Your task to perform on an android device: Add macbook to the cart on ebay, then select checkout. Image 0: 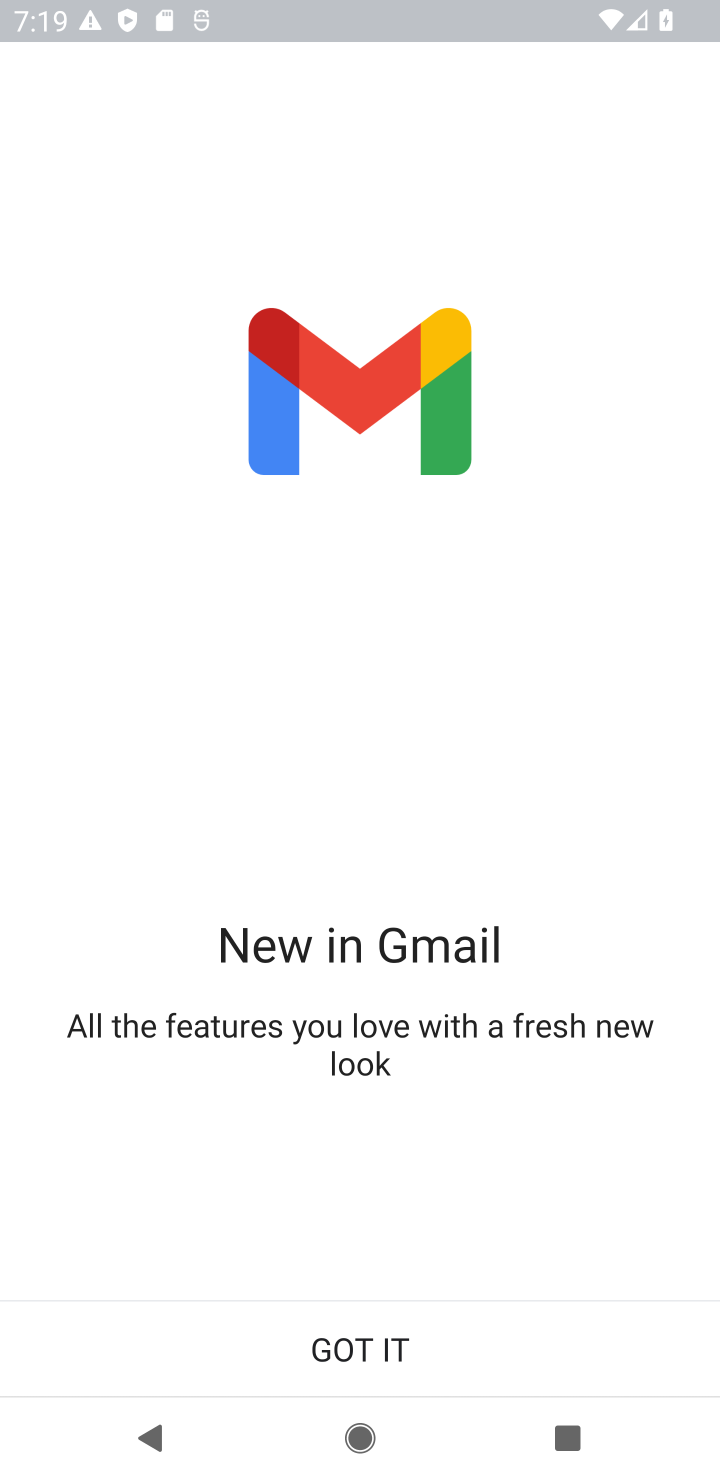
Step 0: press home button
Your task to perform on an android device: Add macbook to the cart on ebay, then select checkout. Image 1: 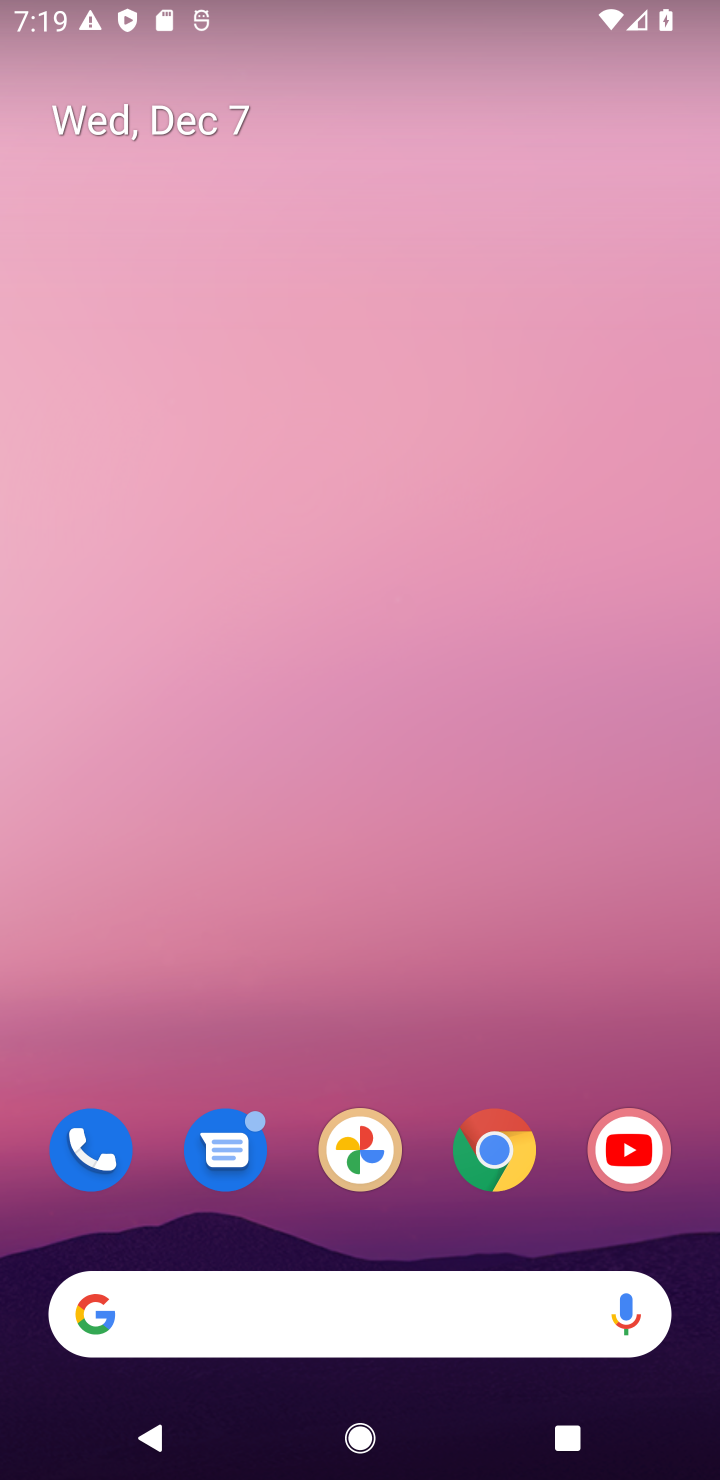
Step 1: click (493, 1152)
Your task to perform on an android device: Add macbook to the cart on ebay, then select checkout. Image 2: 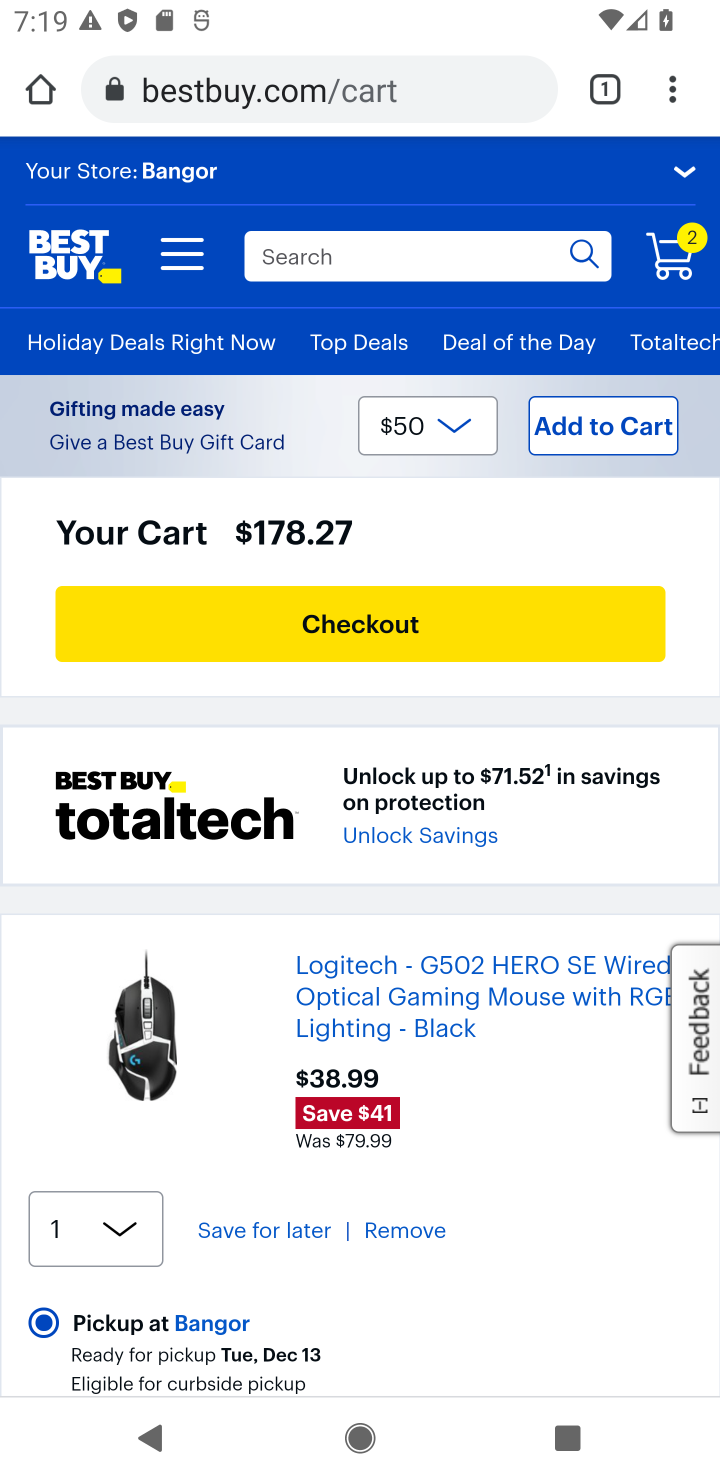
Step 2: click (350, 83)
Your task to perform on an android device: Add macbook to the cart on ebay, then select checkout. Image 3: 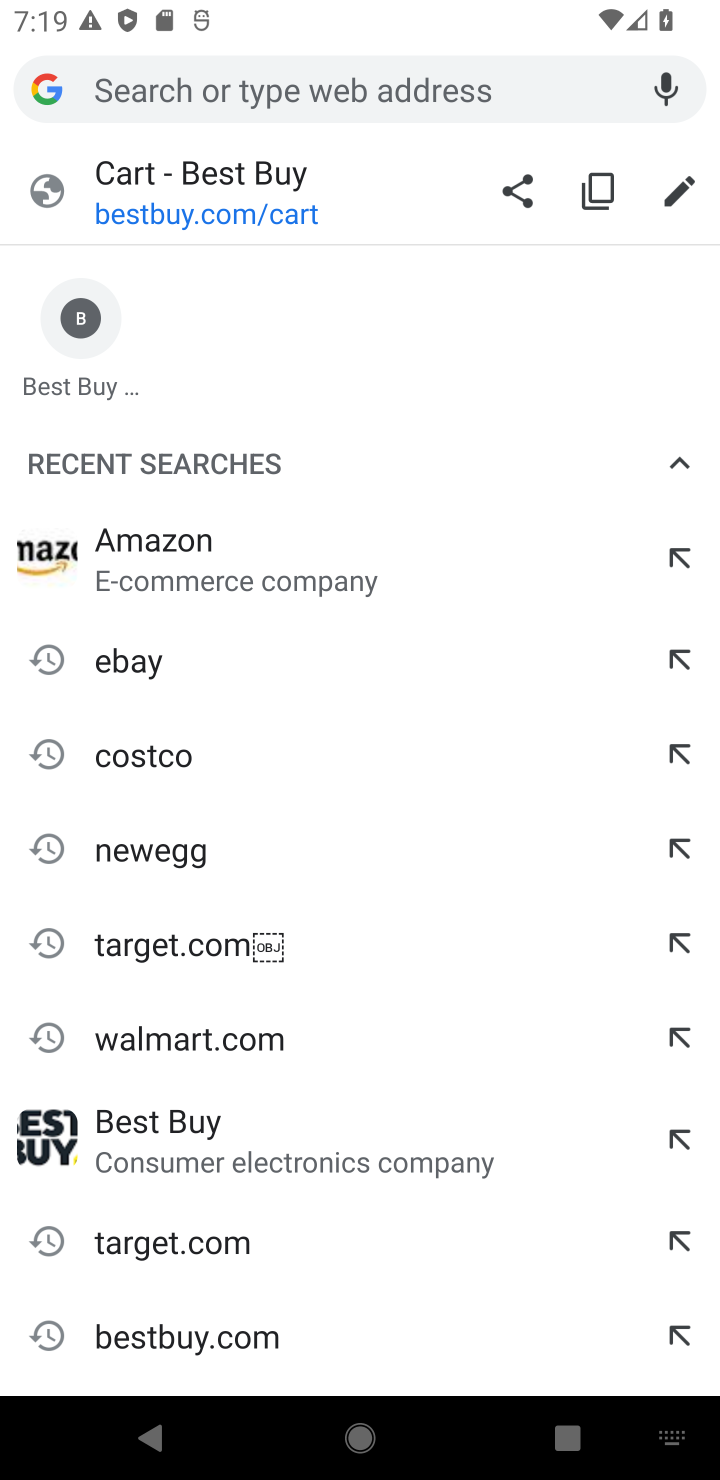
Step 3: click (228, 674)
Your task to perform on an android device: Add macbook to the cart on ebay, then select checkout. Image 4: 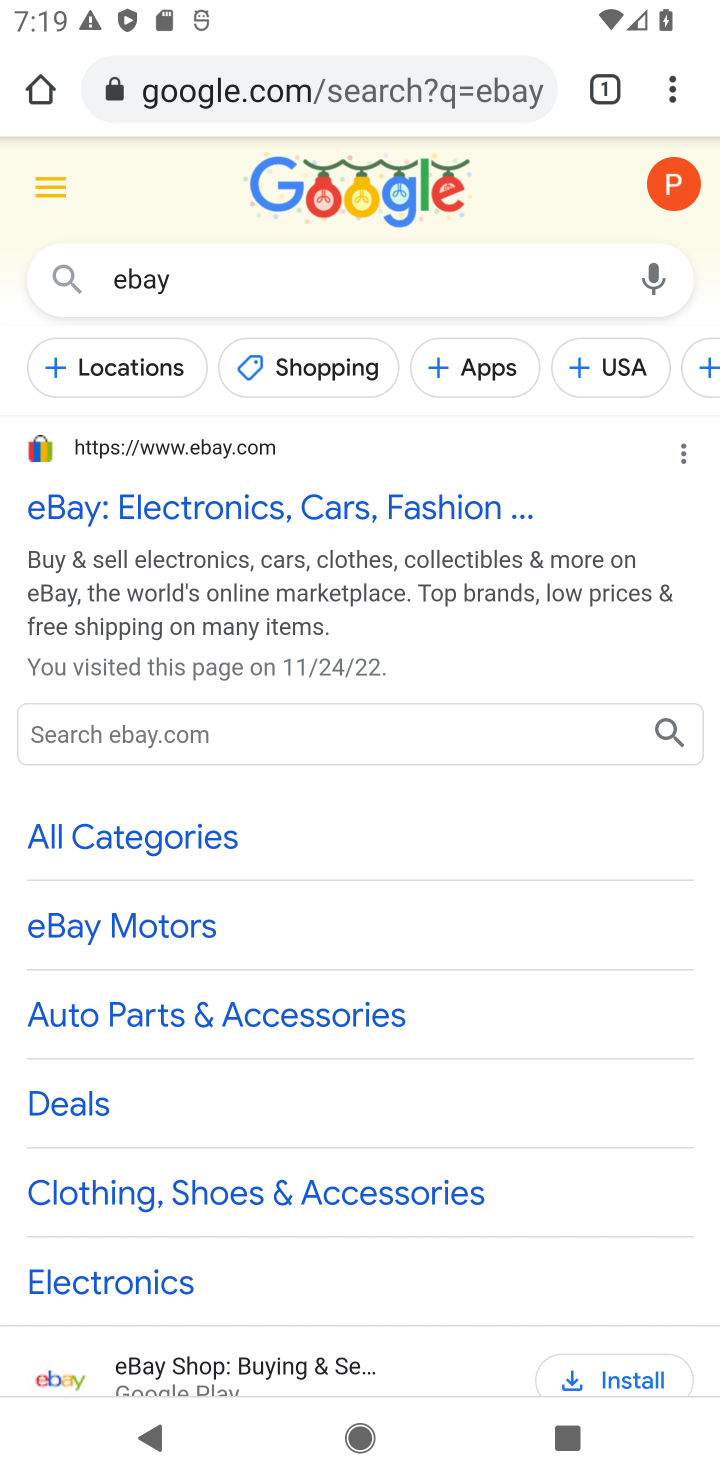
Step 4: click (159, 512)
Your task to perform on an android device: Add macbook to the cart on ebay, then select checkout. Image 5: 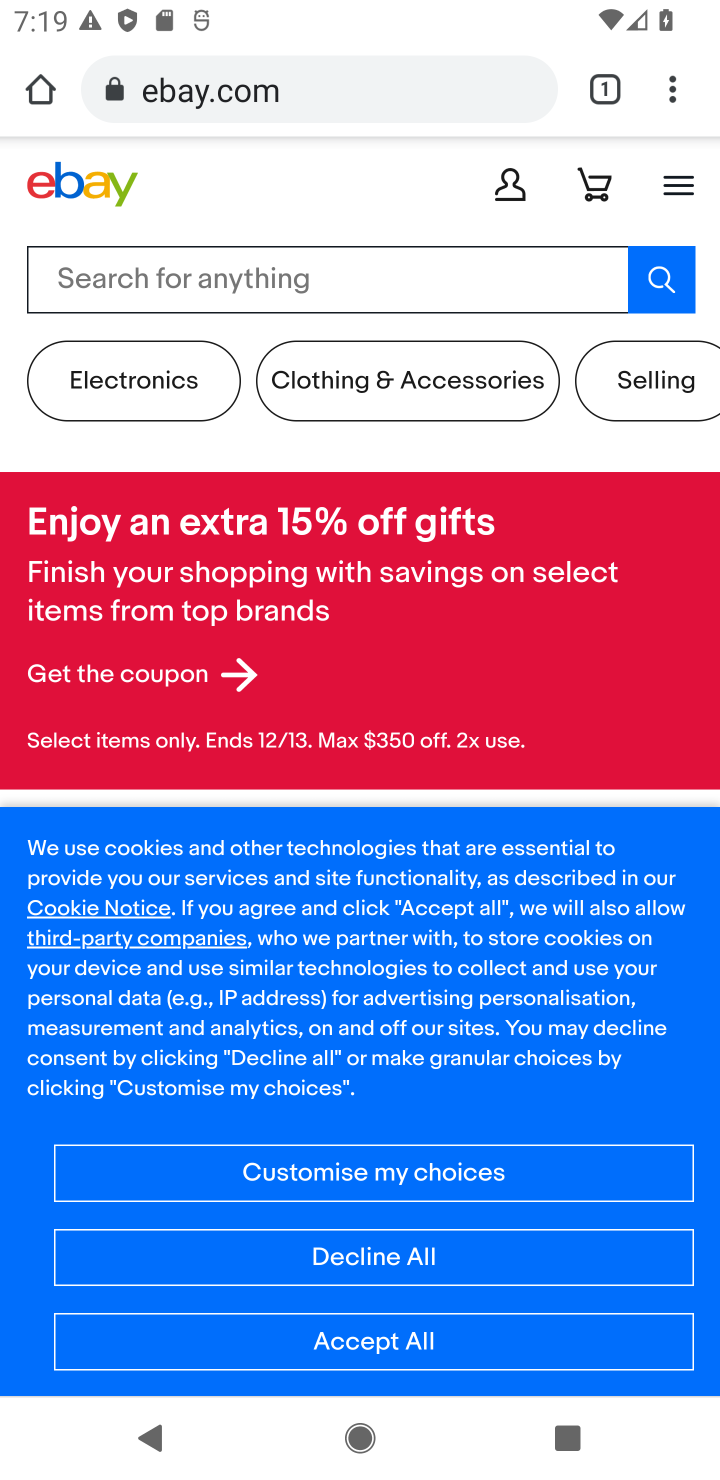
Step 5: type "macbook"
Your task to perform on an android device: Add macbook to the cart on ebay, then select checkout. Image 6: 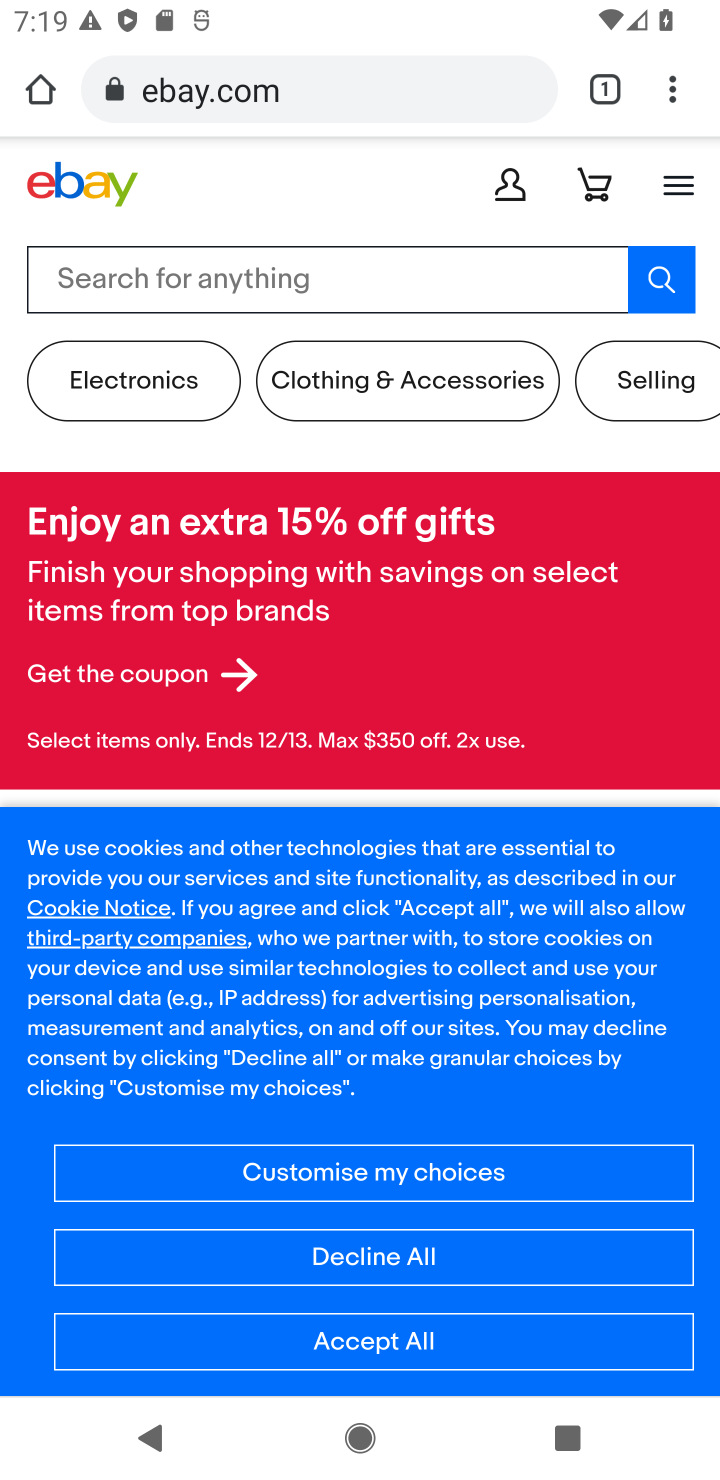
Step 6: click (331, 1341)
Your task to perform on an android device: Add macbook to the cart on ebay, then select checkout. Image 7: 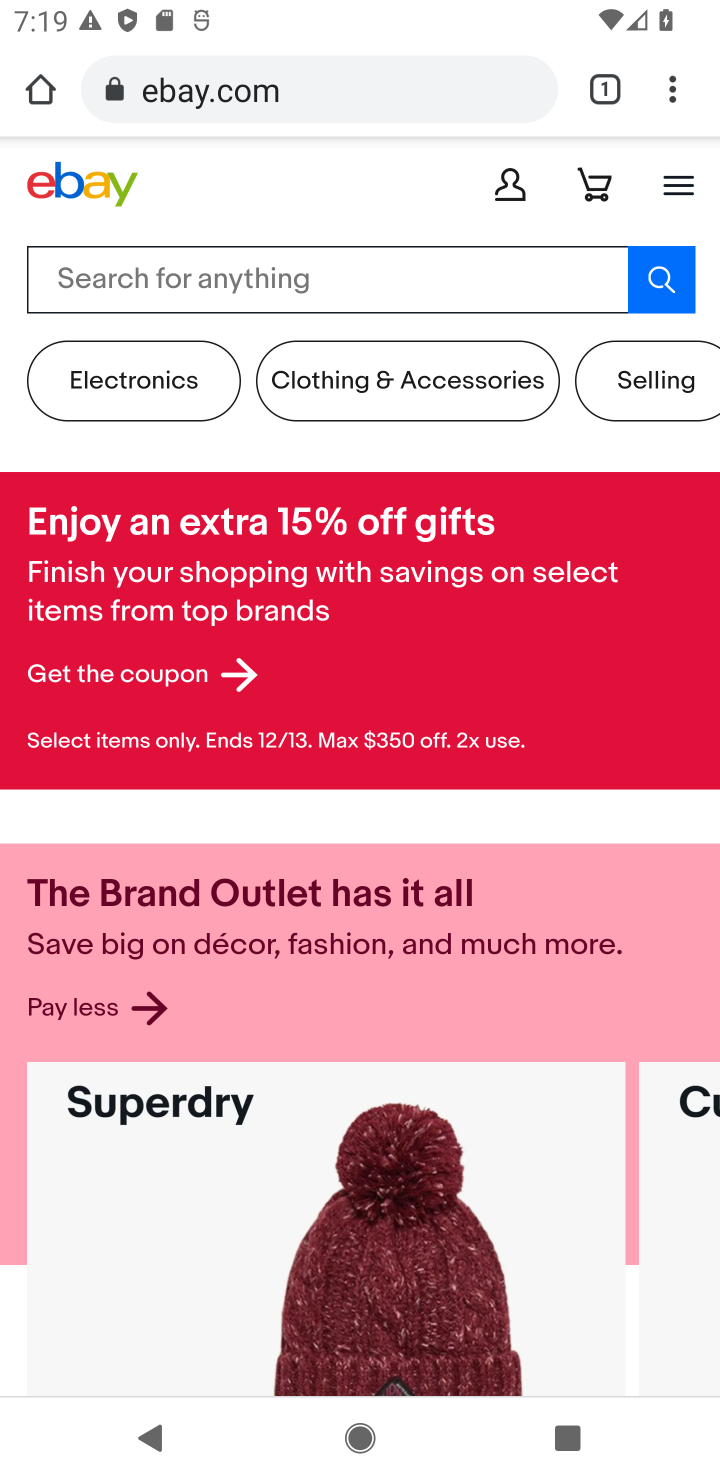
Step 7: click (378, 291)
Your task to perform on an android device: Add macbook to the cart on ebay, then select checkout. Image 8: 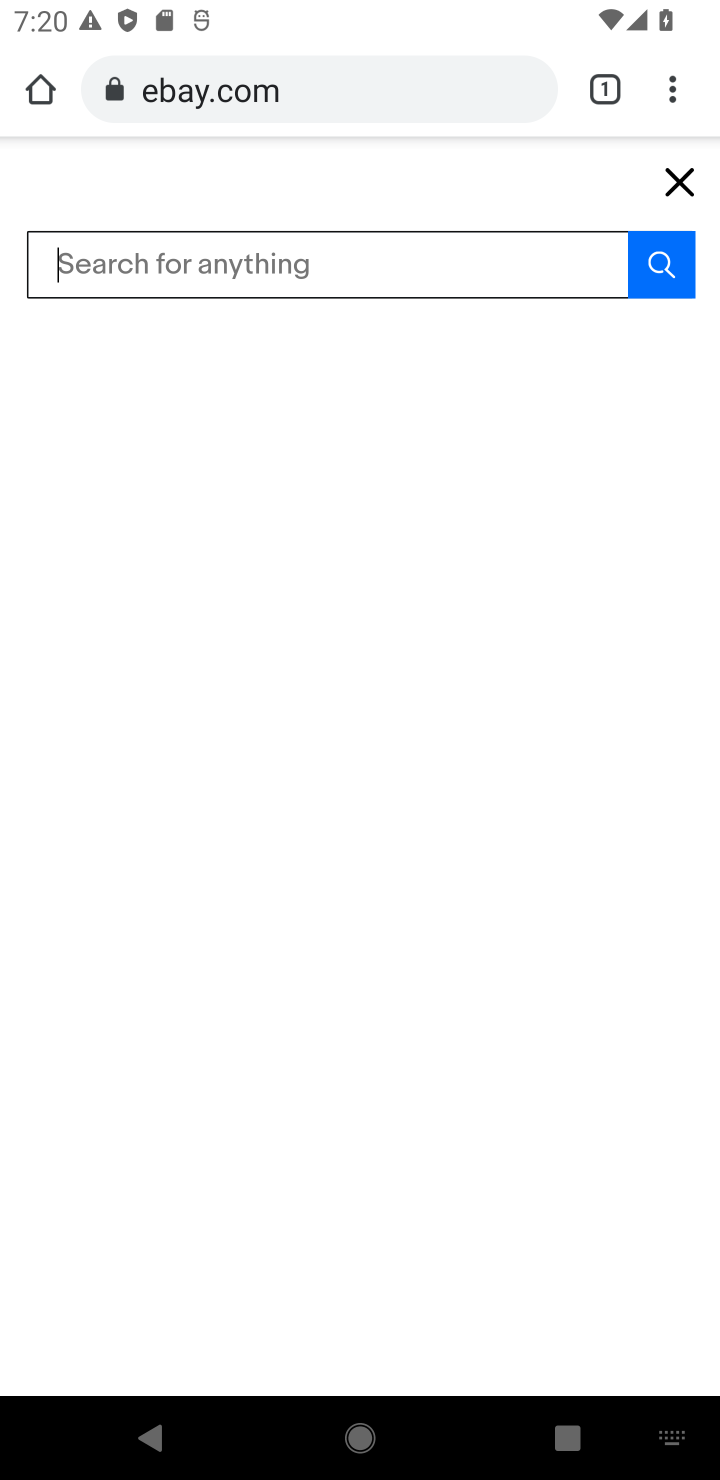
Step 8: type "macbook"
Your task to perform on an android device: Add macbook to the cart on ebay, then select checkout. Image 9: 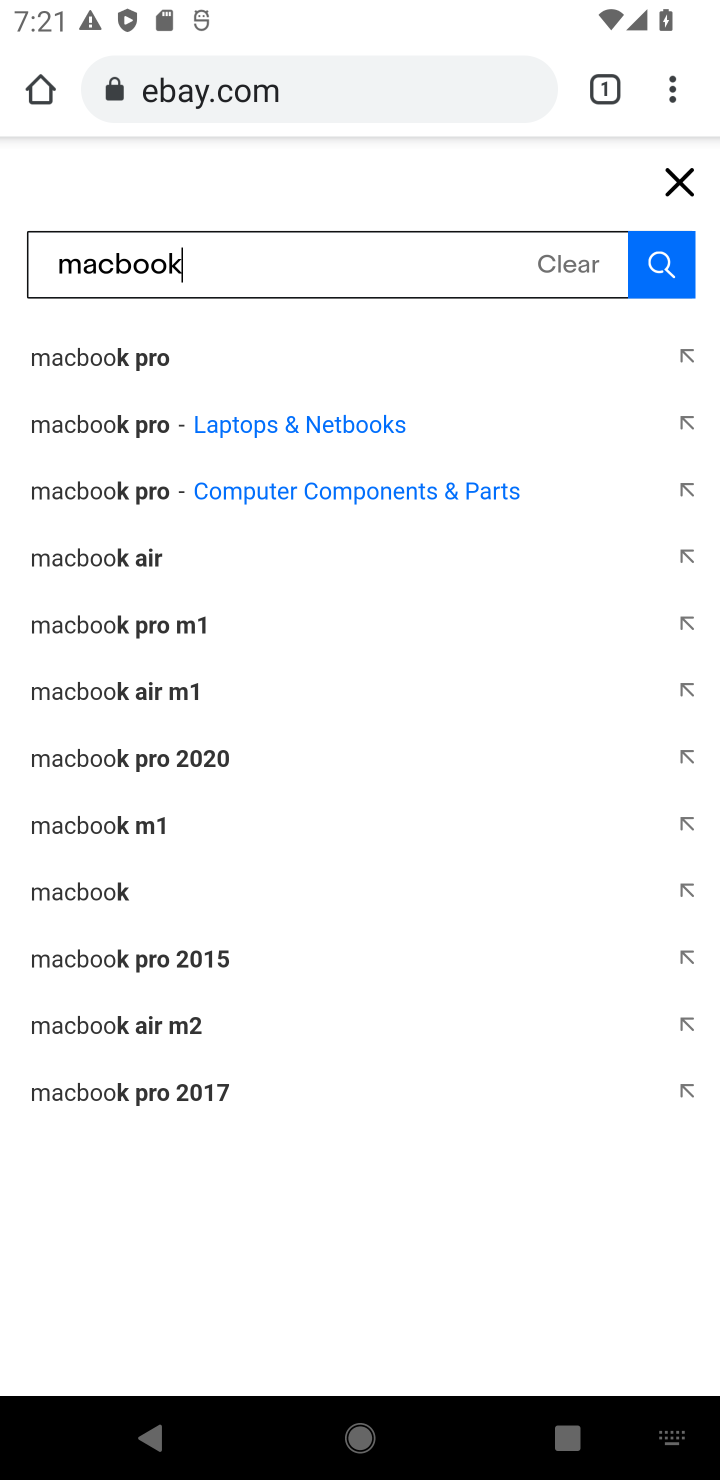
Step 9: click (70, 352)
Your task to perform on an android device: Add macbook to the cart on ebay, then select checkout. Image 10: 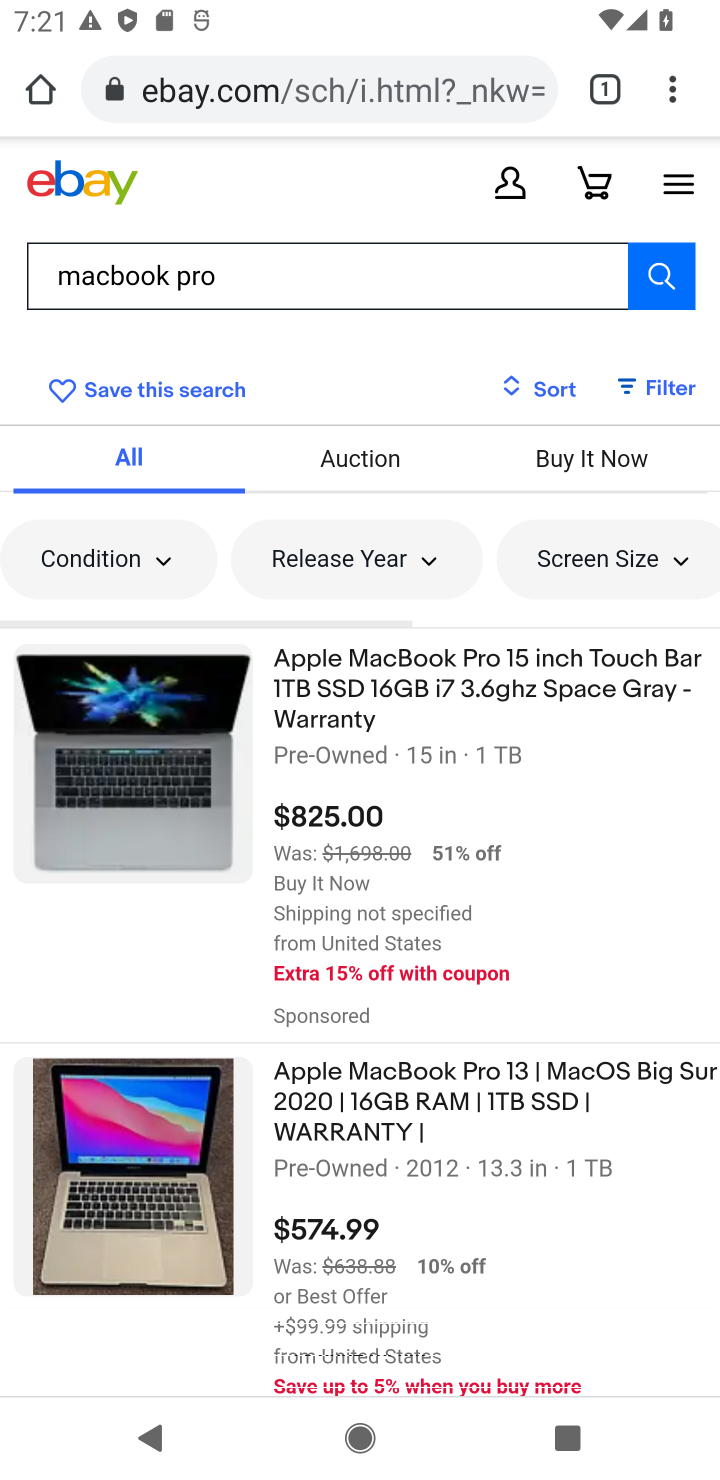
Step 10: click (131, 801)
Your task to perform on an android device: Add macbook to the cart on ebay, then select checkout. Image 11: 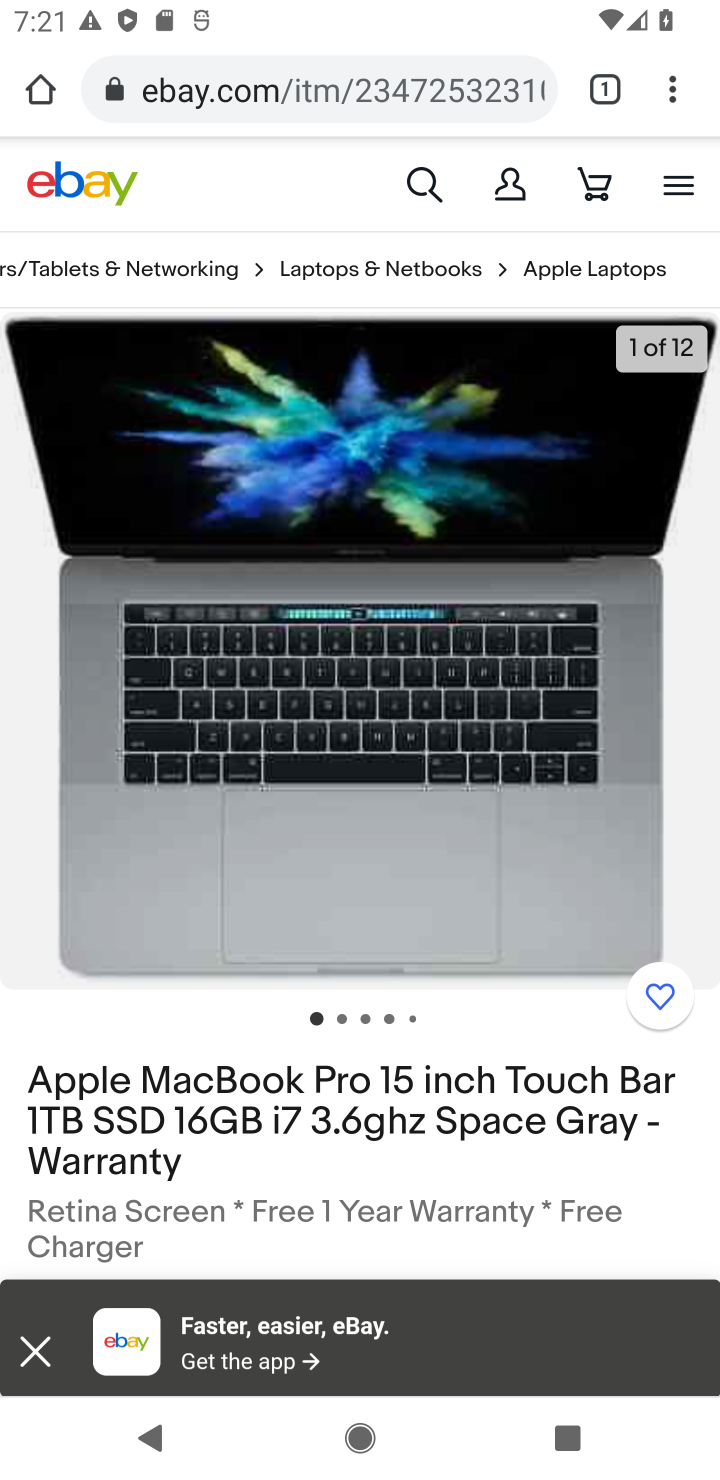
Step 11: drag from (428, 1220) to (462, 345)
Your task to perform on an android device: Add macbook to the cart on ebay, then select checkout. Image 12: 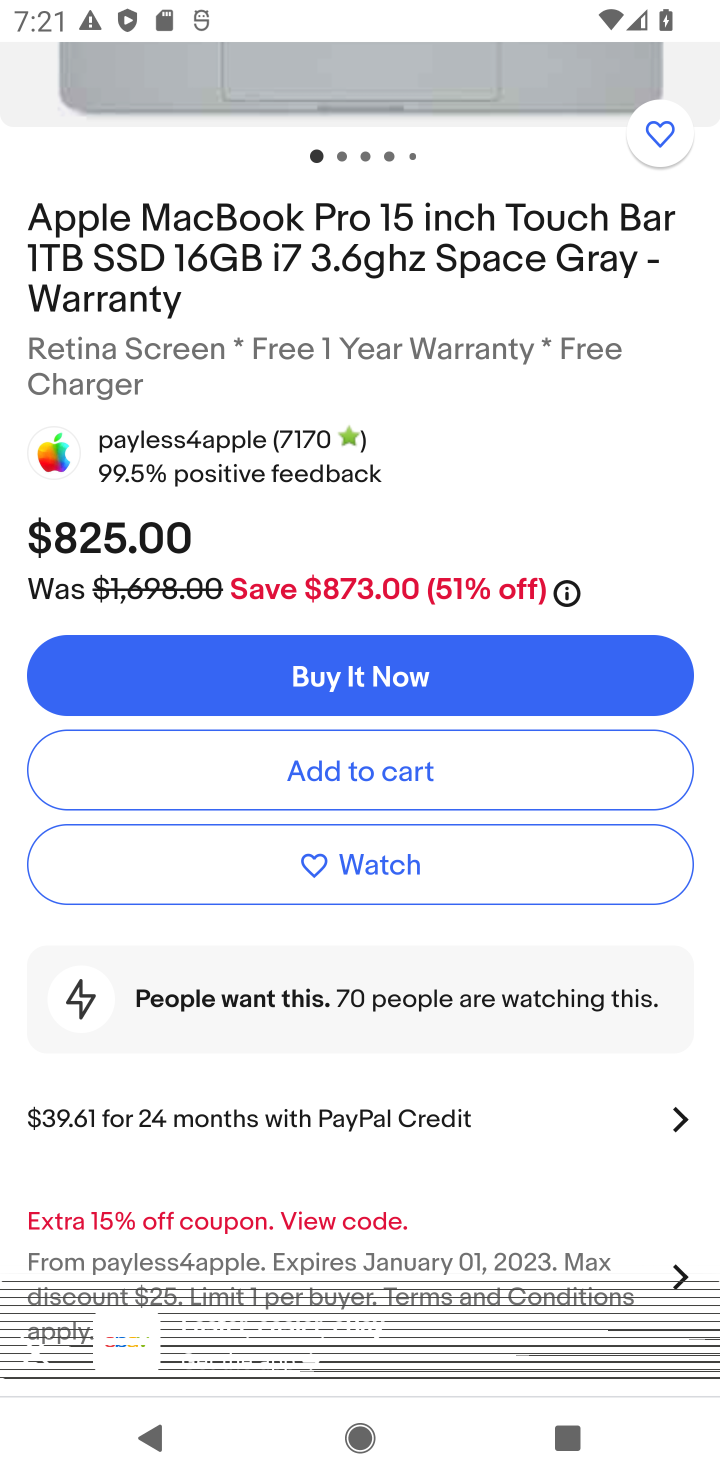
Step 12: click (380, 770)
Your task to perform on an android device: Add macbook to the cart on ebay, then select checkout. Image 13: 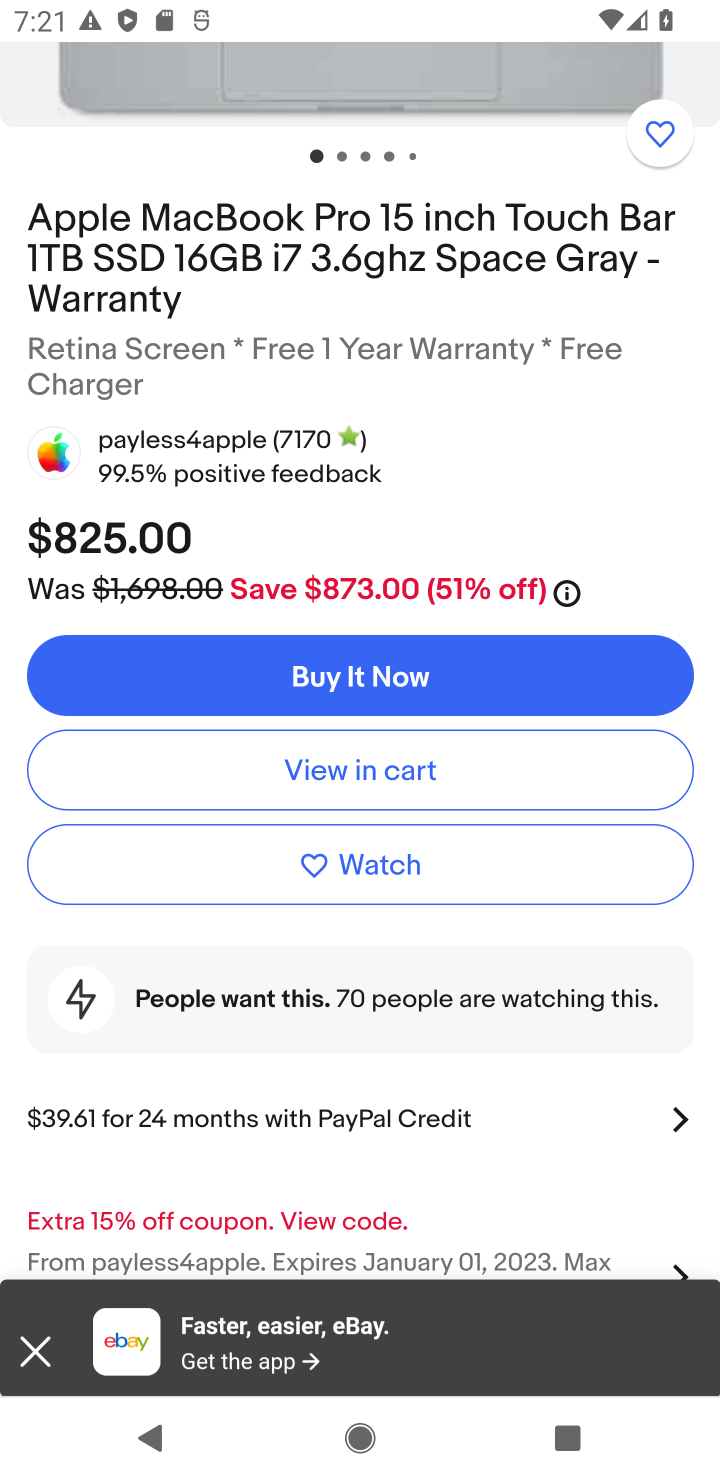
Step 13: click (380, 770)
Your task to perform on an android device: Add macbook to the cart on ebay, then select checkout. Image 14: 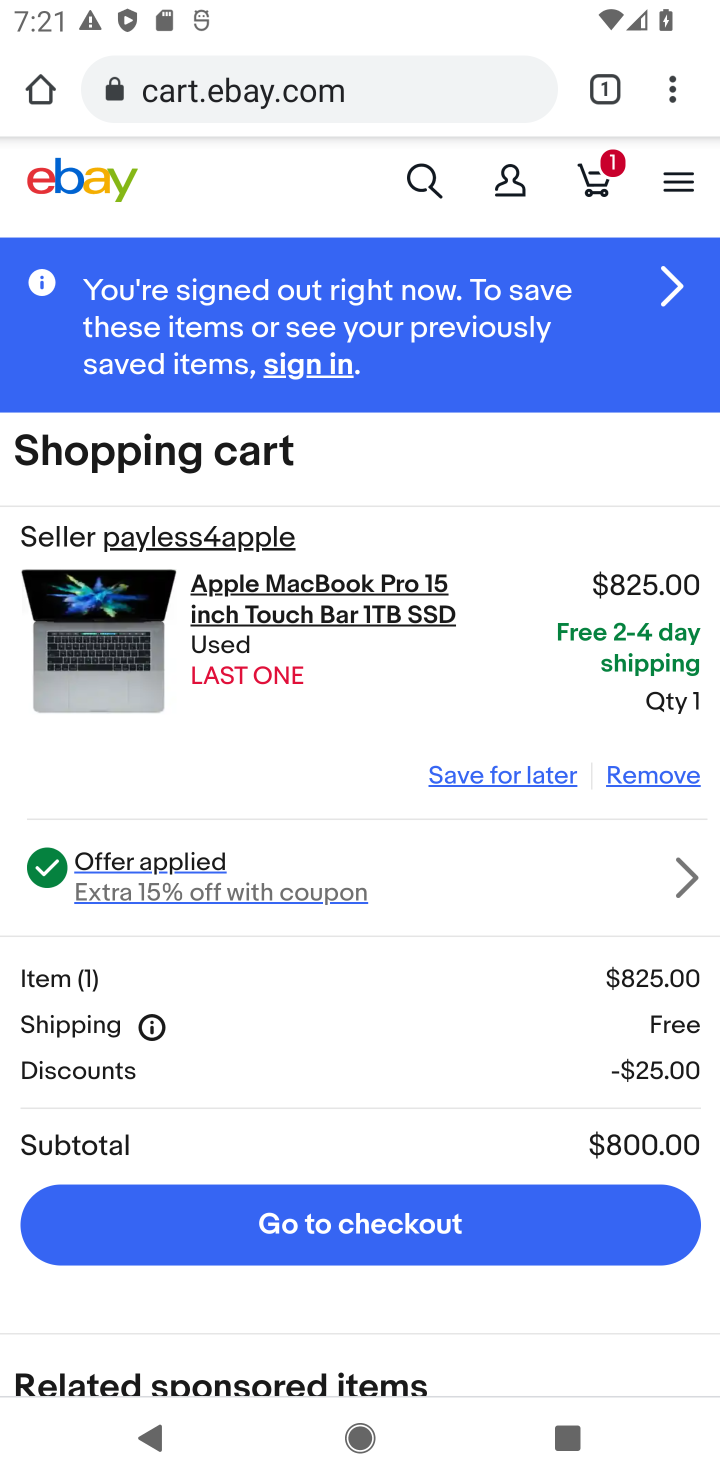
Step 14: click (365, 1227)
Your task to perform on an android device: Add macbook to the cart on ebay, then select checkout. Image 15: 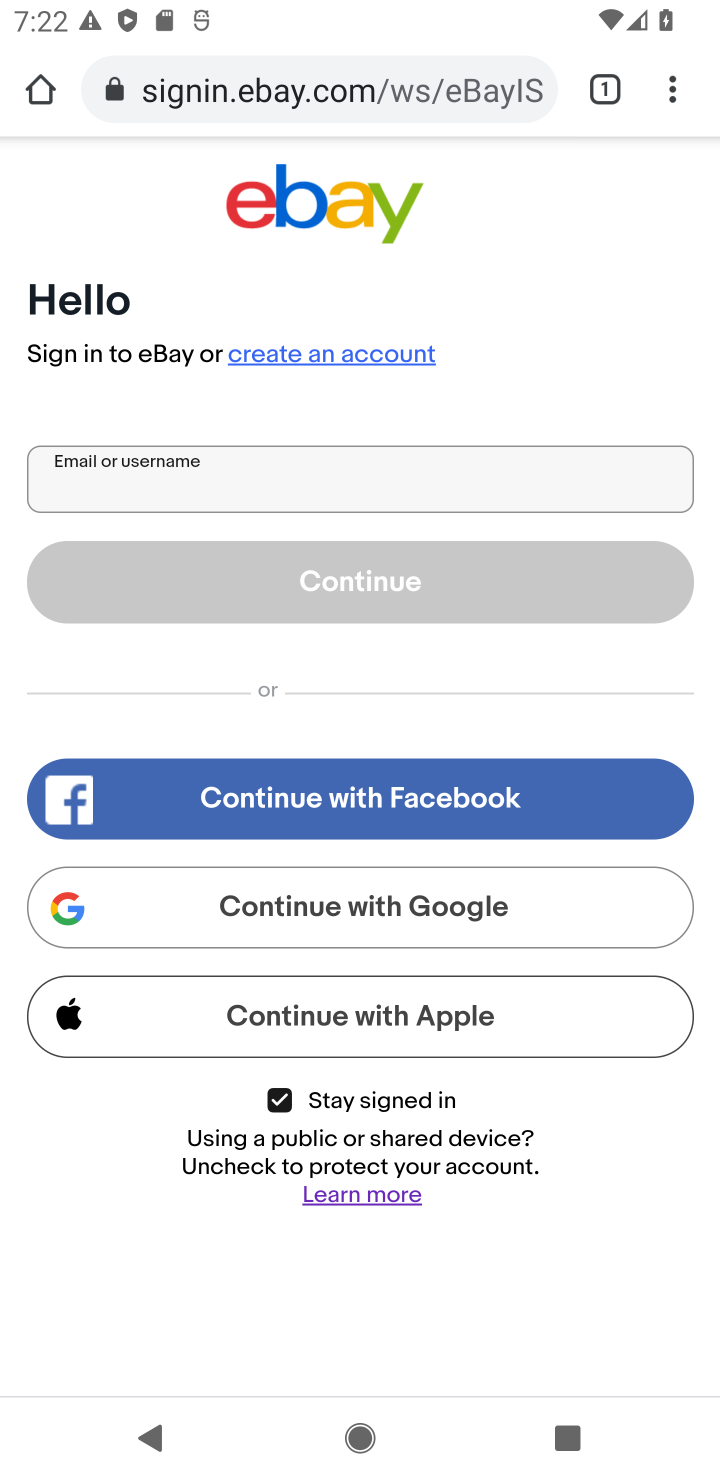
Step 15: task complete